Your task to perform on an android device: Go to accessibility settings Image 0: 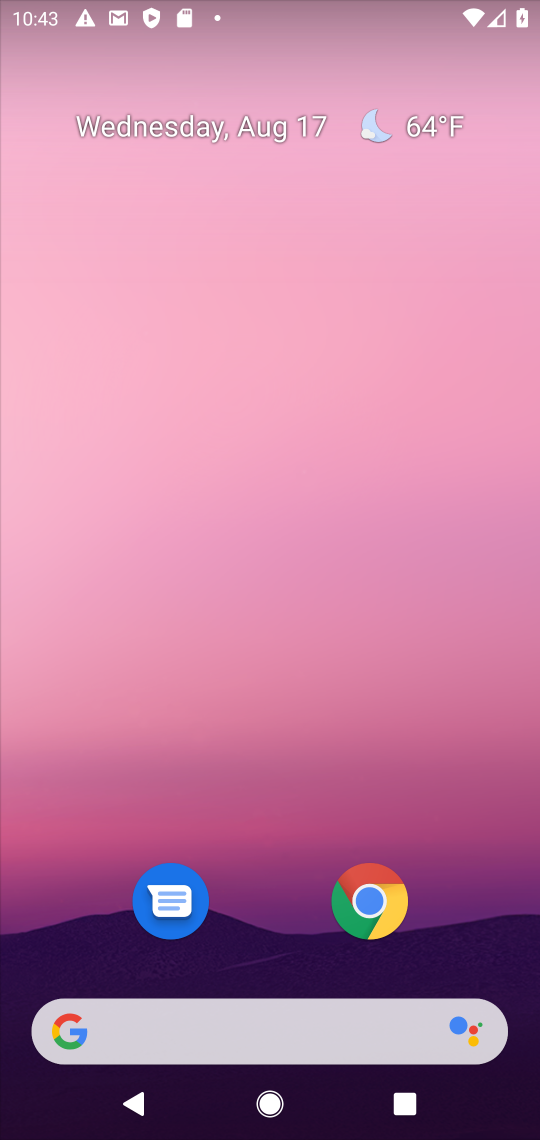
Step 0: press home button
Your task to perform on an android device: Go to accessibility settings Image 1: 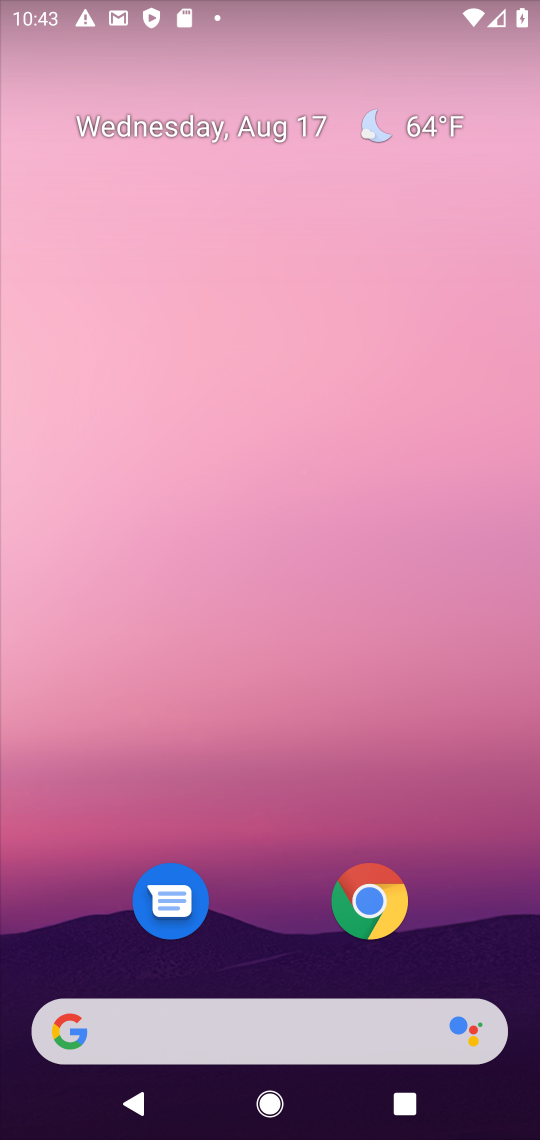
Step 1: drag from (314, 979) to (429, 49)
Your task to perform on an android device: Go to accessibility settings Image 2: 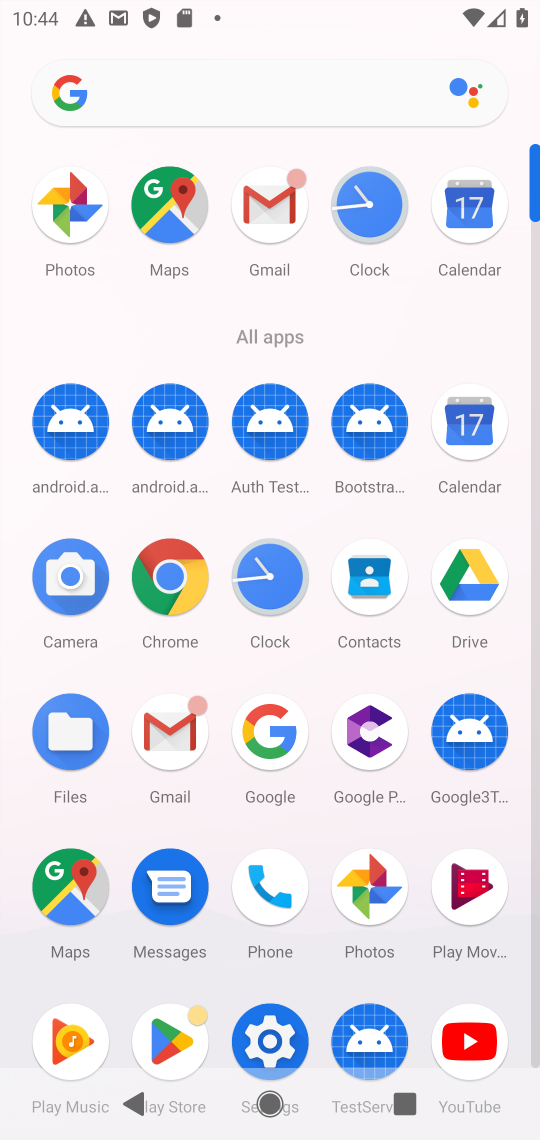
Step 2: click (257, 1022)
Your task to perform on an android device: Go to accessibility settings Image 3: 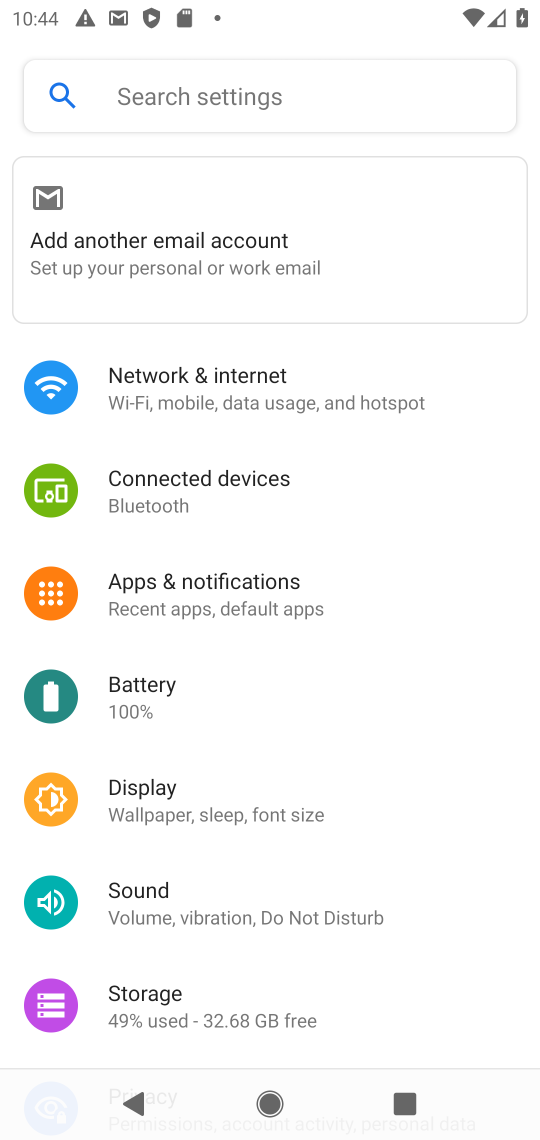
Step 3: drag from (404, 1010) to (226, 3)
Your task to perform on an android device: Go to accessibility settings Image 4: 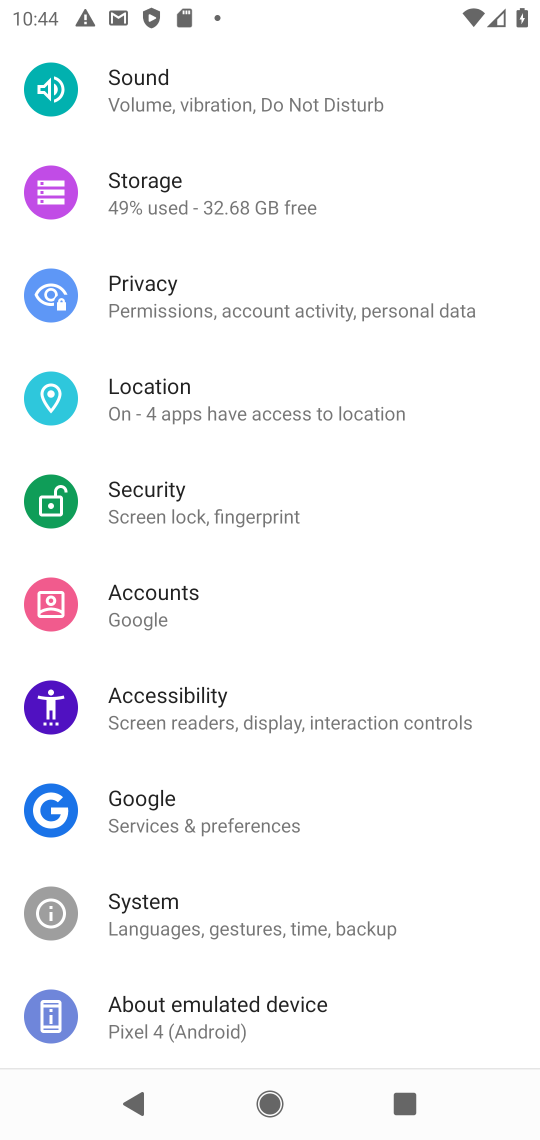
Step 4: click (117, 706)
Your task to perform on an android device: Go to accessibility settings Image 5: 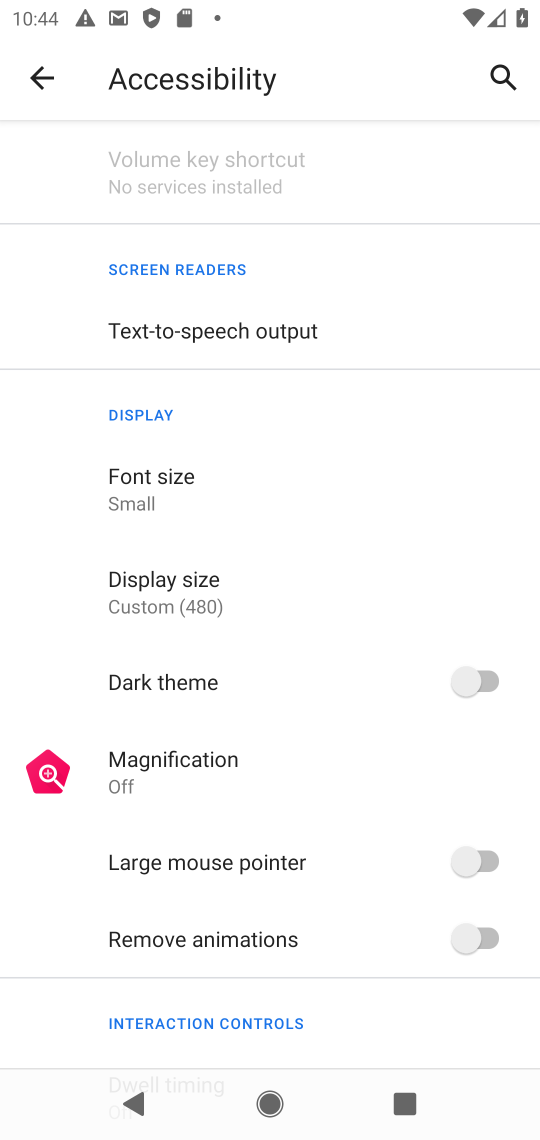
Step 5: task complete